Your task to perform on an android device: toggle wifi Image 0: 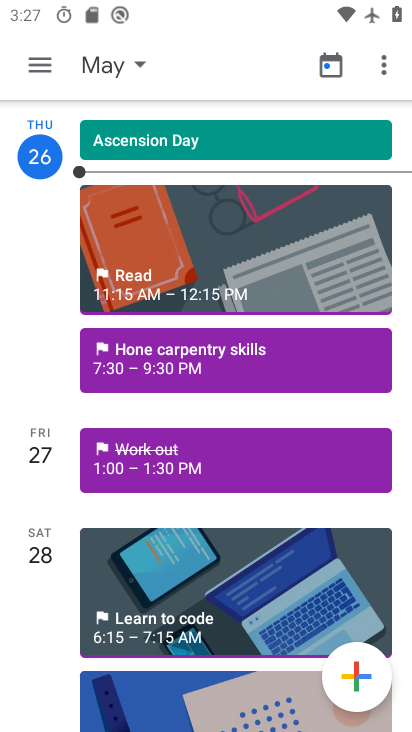
Step 0: drag from (254, 683) to (198, 160)
Your task to perform on an android device: toggle wifi Image 1: 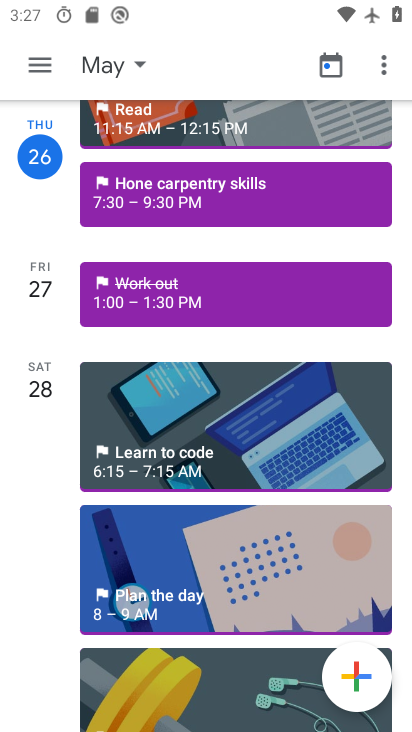
Step 1: press back button
Your task to perform on an android device: toggle wifi Image 2: 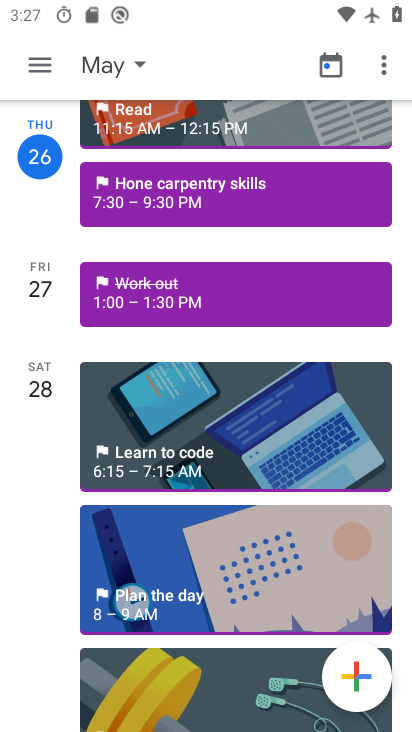
Step 2: press back button
Your task to perform on an android device: toggle wifi Image 3: 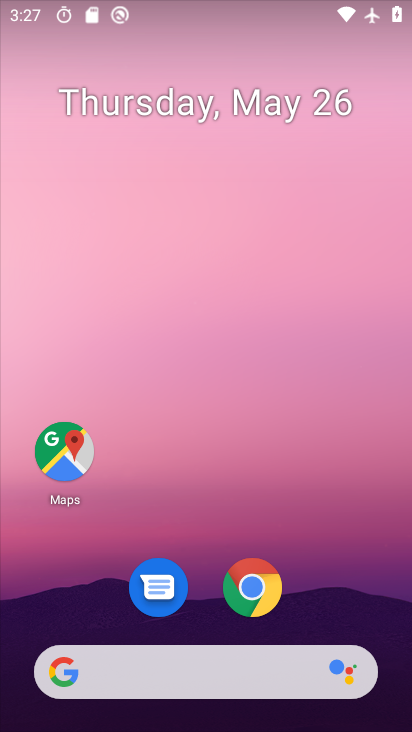
Step 3: drag from (277, 668) to (194, 98)
Your task to perform on an android device: toggle wifi Image 4: 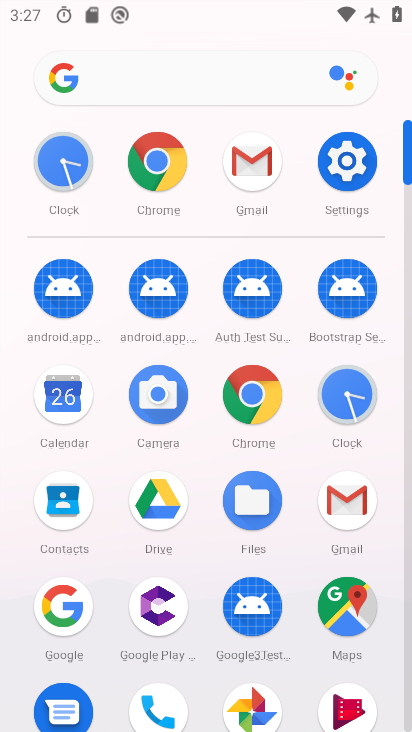
Step 4: click (345, 175)
Your task to perform on an android device: toggle wifi Image 5: 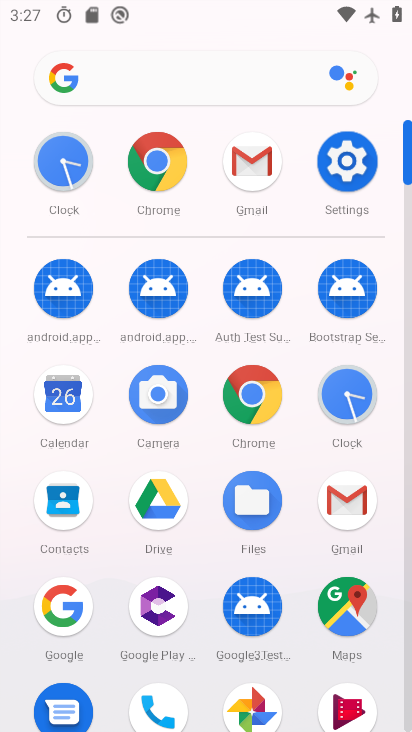
Step 5: click (345, 175)
Your task to perform on an android device: toggle wifi Image 6: 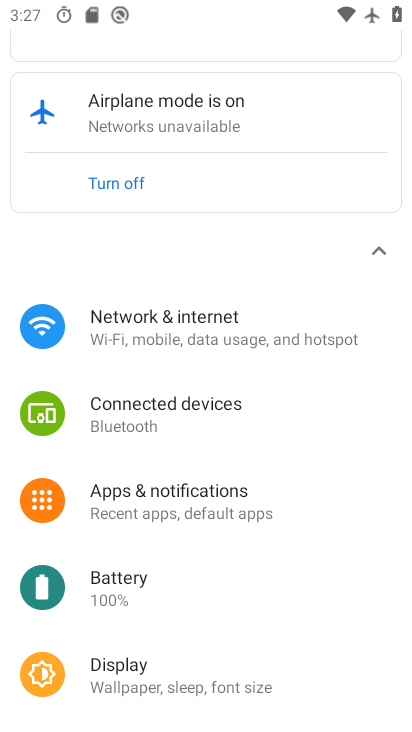
Step 6: click (178, 332)
Your task to perform on an android device: toggle wifi Image 7: 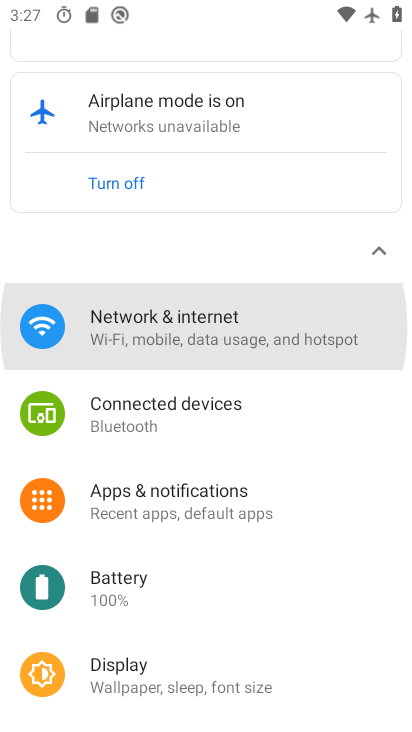
Step 7: click (178, 333)
Your task to perform on an android device: toggle wifi Image 8: 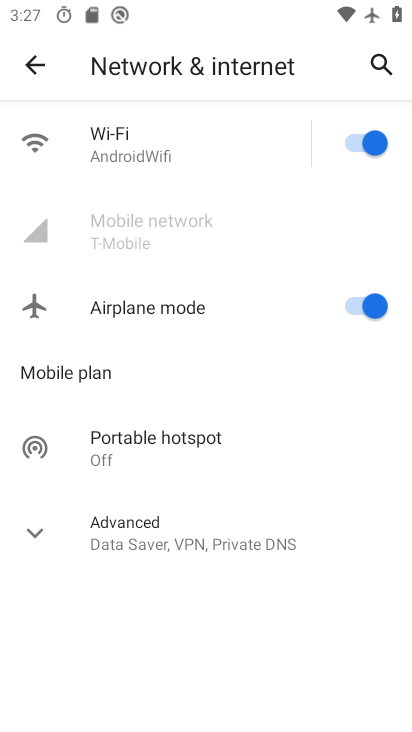
Step 8: task complete